Your task to perform on an android device: Do I have any events tomorrow? Image 0: 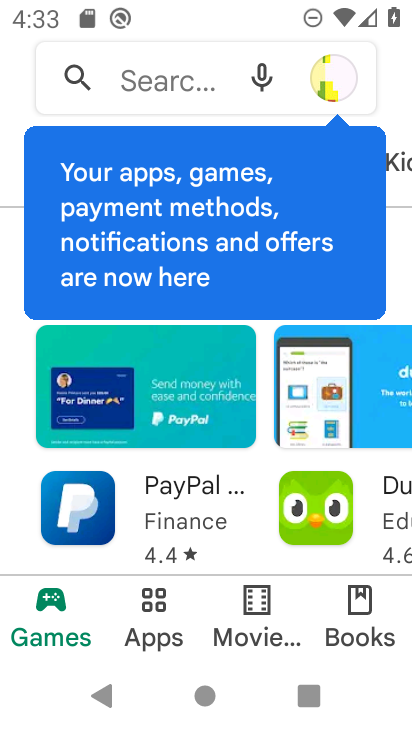
Step 0: press home button
Your task to perform on an android device: Do I have any events tomorrow? Image 1: 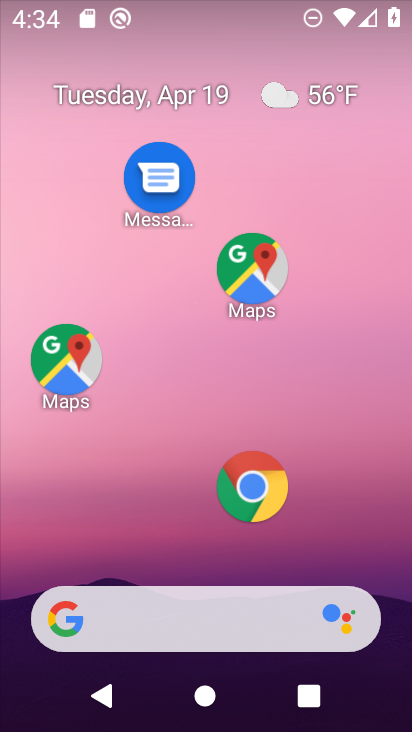
Step 1: drag from (295, 573) to (332, 214)
Your task to perform on an android device: Do I have any events tomorrow? Image 2: 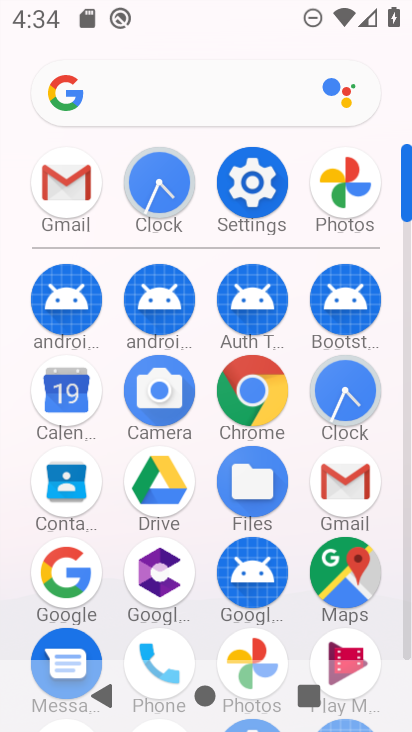
Step 2: drag from (193, 539) to (197, 400)
Your task to perform on an android device: Do I have any events tomorrow? Image 3: 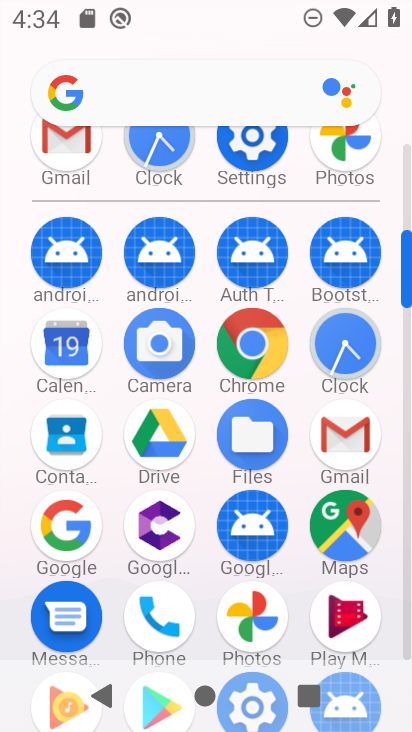
Step 3: click (85, 339)
Your task to perform on an android device: Do I have any events tomorrow? Image 4: 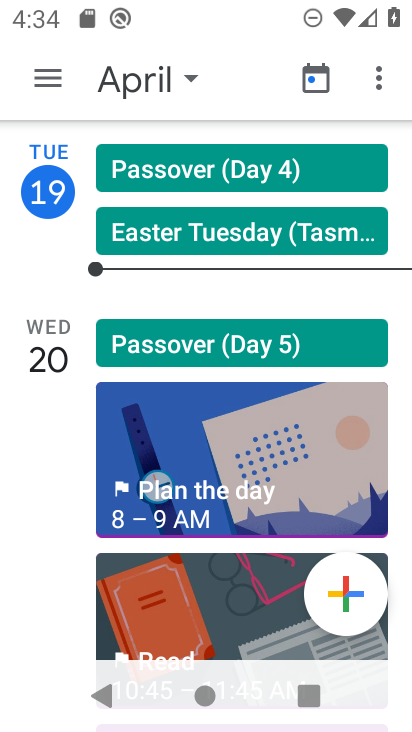
Step 4: click (190, 425)
Your task to perform on an android device: Do I have any events tomorrow? Image 5: 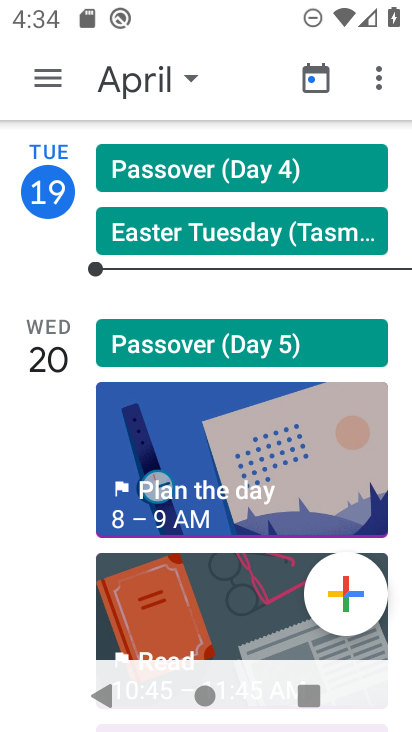
Step 5: click (256, 453)
Your task to perform on an android device: Do I have any events tomorrow? Image 6: 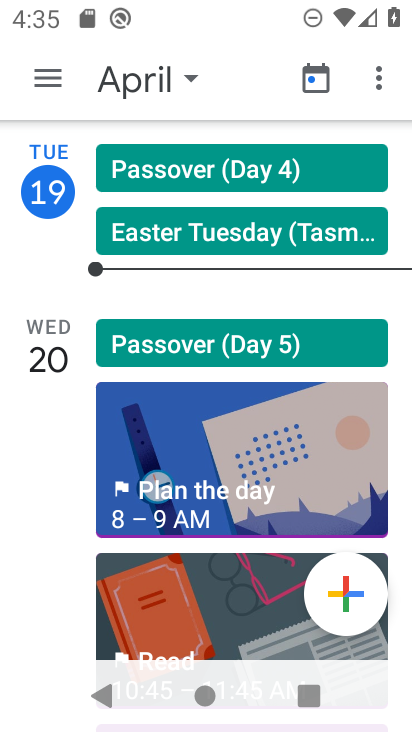
Step 6: click (235, 465)
Your task to perform on an android device: Do I have any events tomorrow? Image 7: 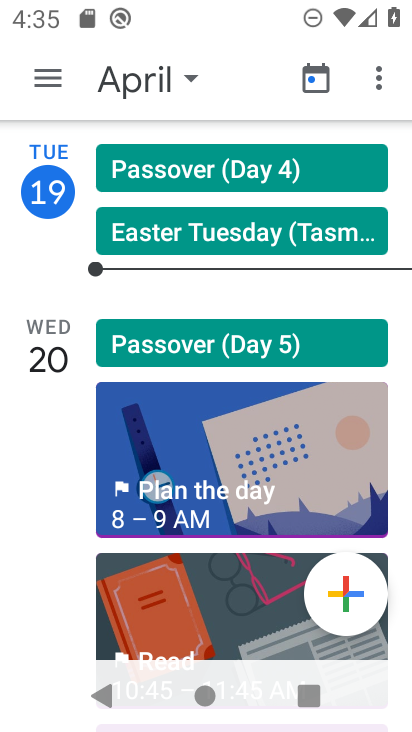
Step 7: task complete